Your task to perform on an android device: Open notification settings Image 0: 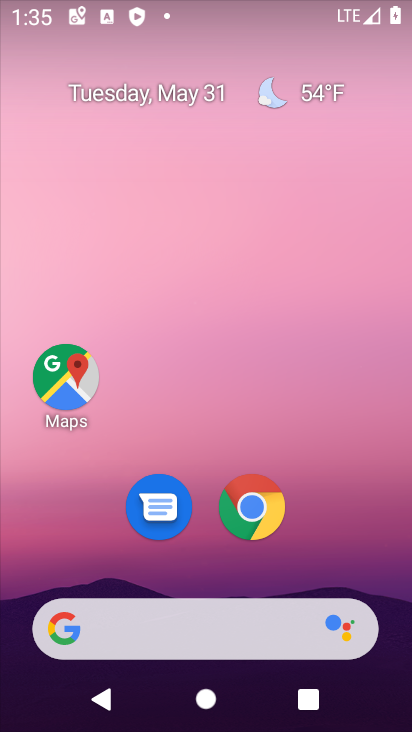
Step 0: drag from (382, 666) to (255, 53)
Your task to perform on an android device: Open notification settings Image 1: 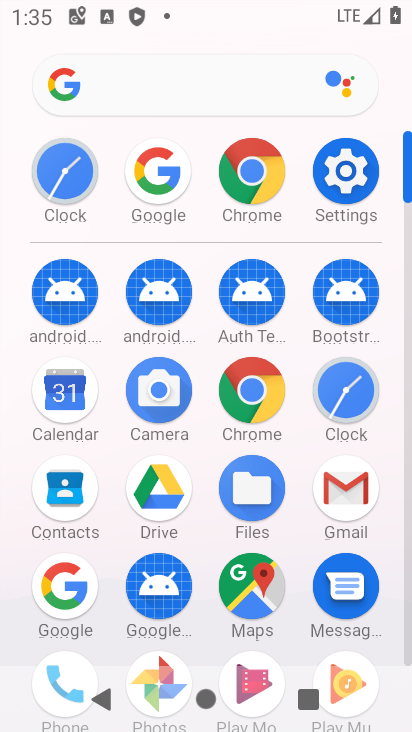
Step 1: click (350, 181)
Your task to perform on an android device: Open notification settings Image 2: 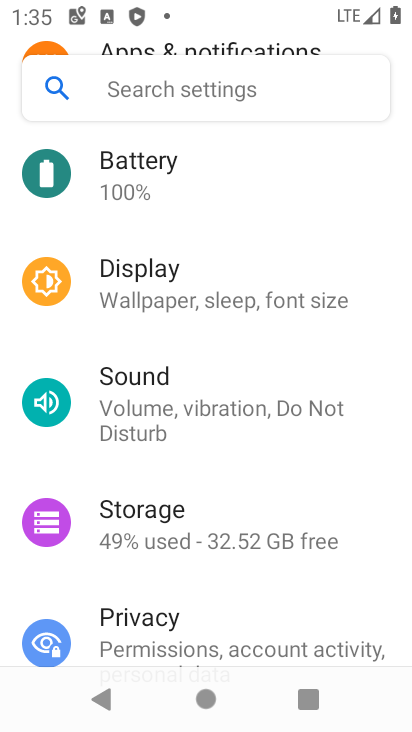
Step 2: drag from (252, 292) to (305, 616)
Your task to perform on an android device: Open notification settings Image 3: 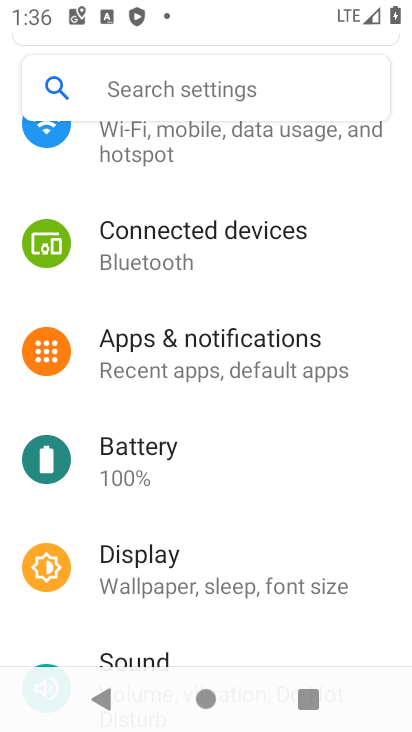
Step 3: click (214, 341)
Your task to perform on an android device: Open notification settings Image 4: 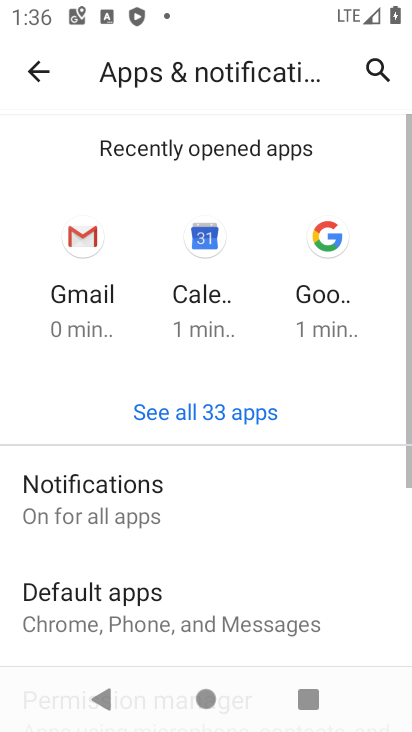
Step 4: click (200, 509)
Your task to perform on an android device: Open notification settings Image 5: 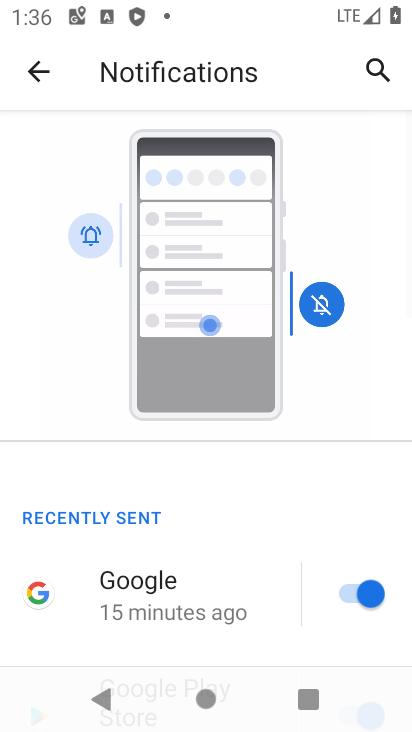
Step 5: task complete